Your task to perform on an android device: open app "Viber Messenger" (install if not already installed), go to login, and select forgot password Image 0: 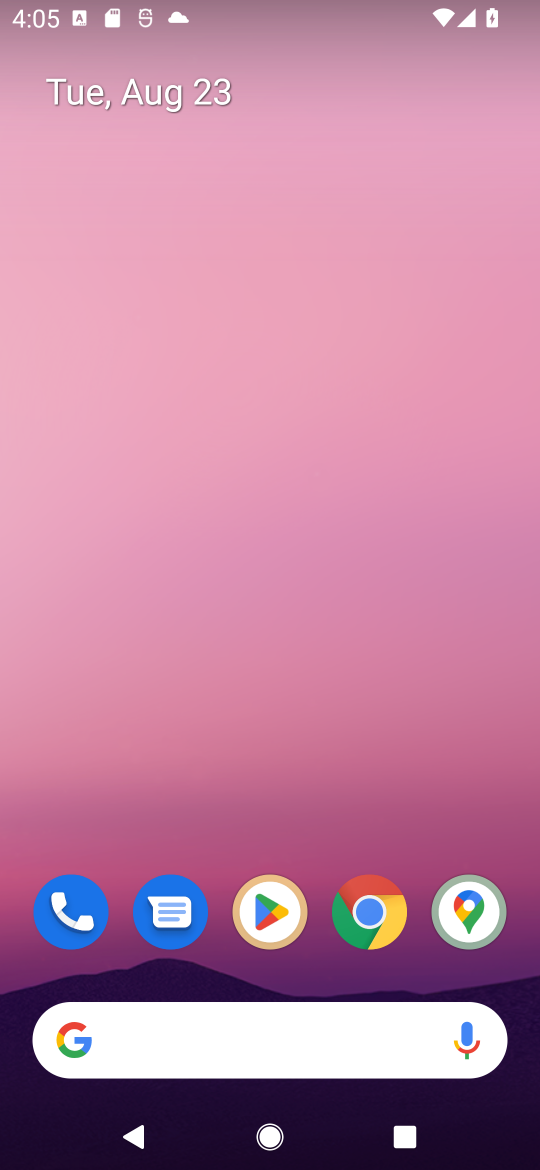
Step 0: drag from (186, 1054) to (296, 239)
Your task to perform on an android device: open app "Viber Messenger" (install if not already installed), go to login, and select forgot password Image 1: 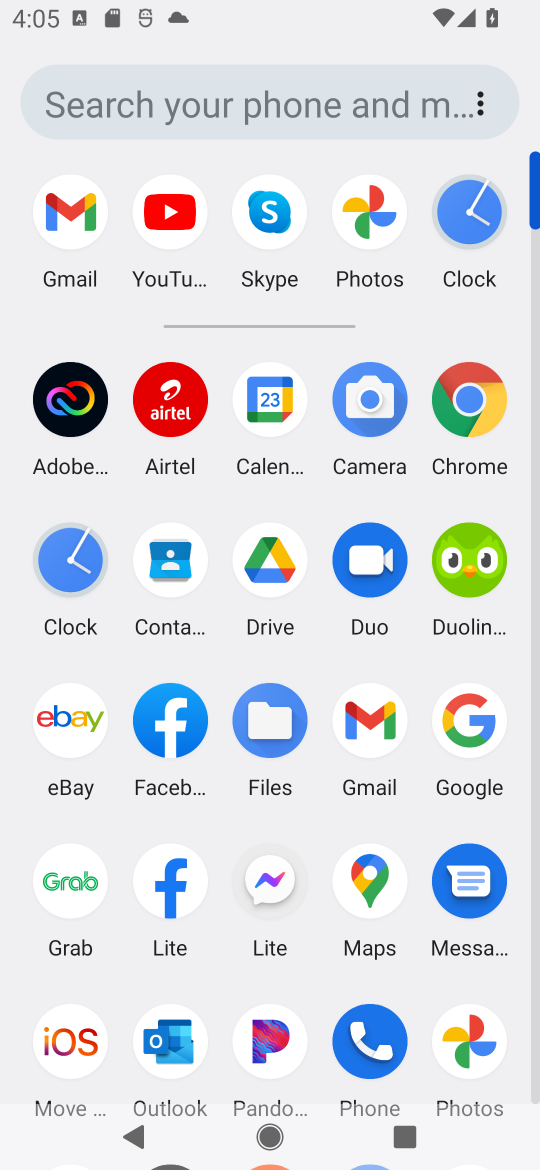
Step 1: drag from (315, 995) to (330, 616)
Your task to perform on an android device: open app "Viber Messenger" (install if not already installed), go to login, and select forgot password Image 2: 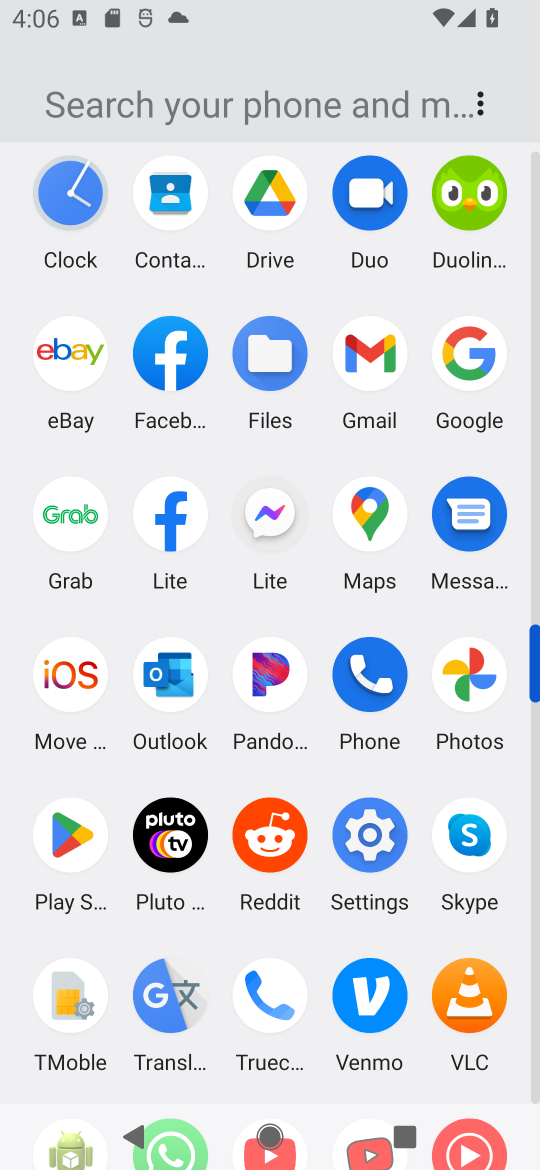
Step 2: click (67, 841)
Your task to perform on an android device: open app "Viber Messenger" (install if not already installed), go to login, and select forgot password Image 3: 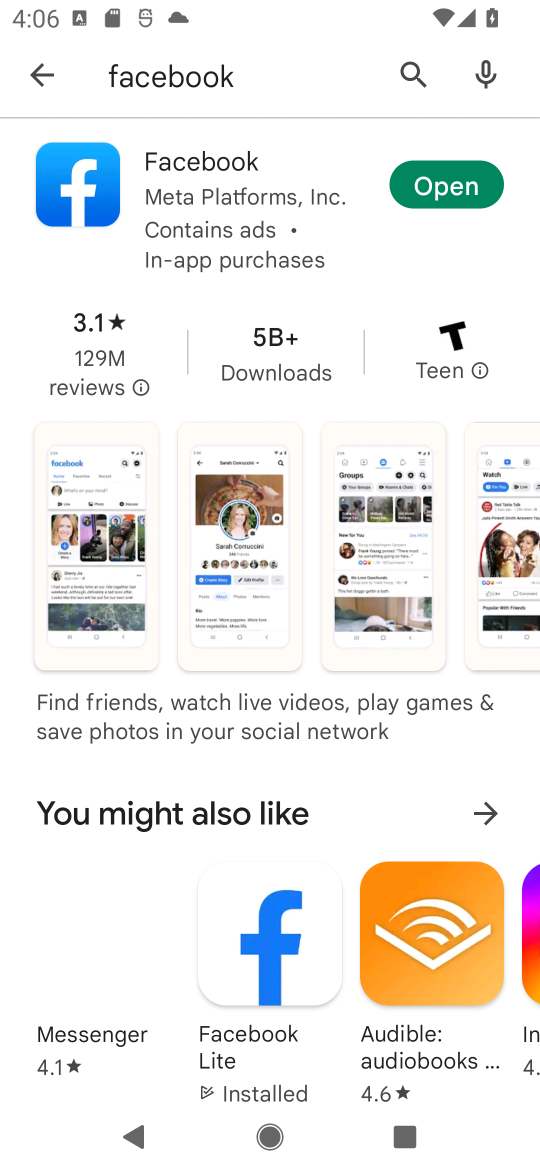
Step 3: press back button
Your task to perform on an android device: open app "Viber Messenger" (install if not already installed), go to login, and select forgot password Image 4: 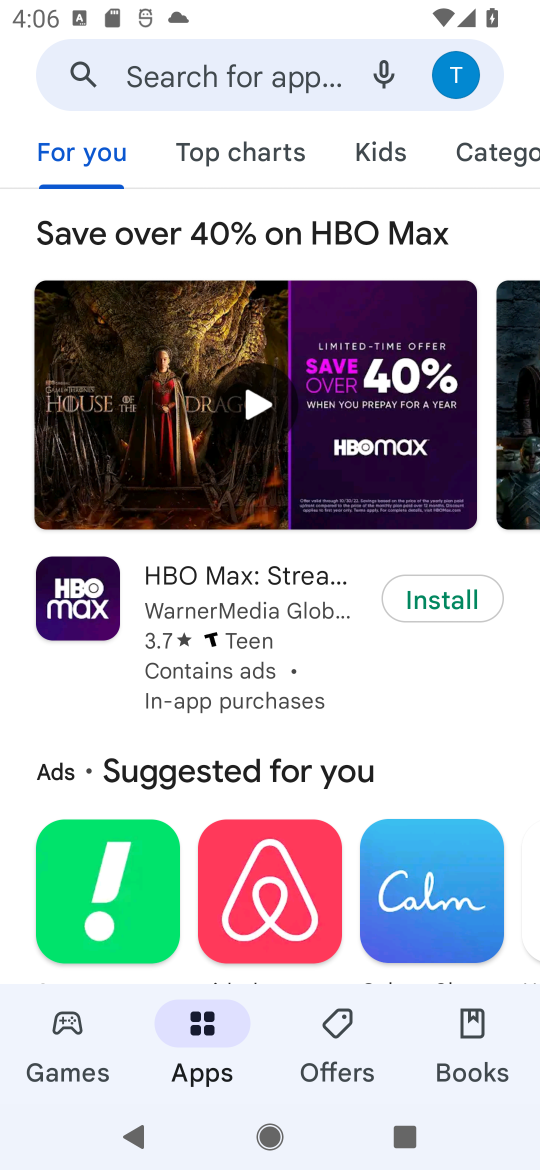
Step 4: click (248, 82)
Your task to perform on an android device: open app "Viber Messenger" (install if not already installed), go to login, and select forgot password Image 5: 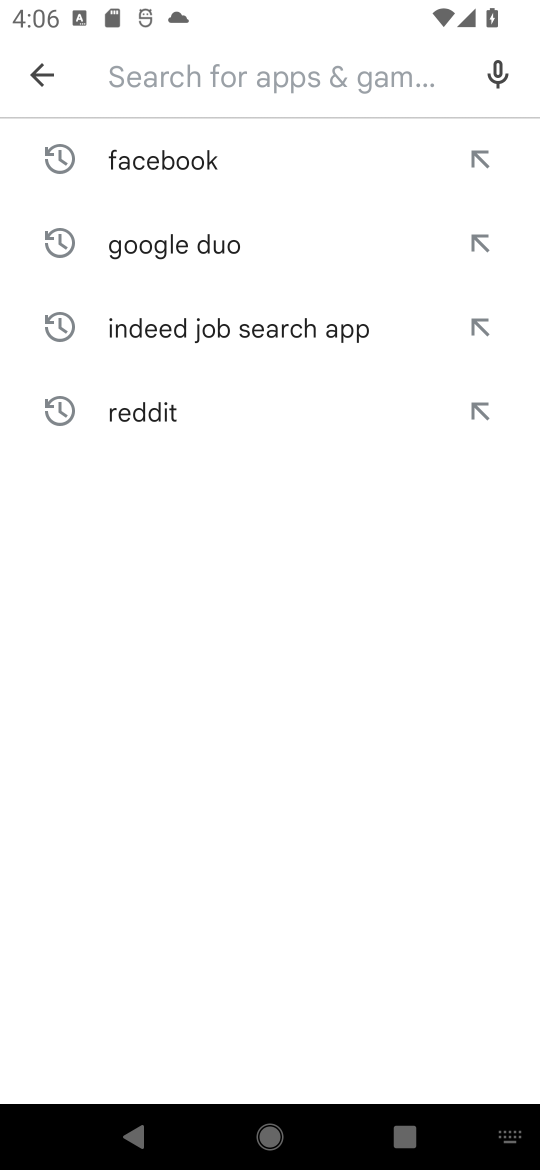
Step 5: type "Viber Messenger"
Your task to perform on an android device: open app "Viber Messenger" (install if not already installed), go to login, and select forgot password Image 6: 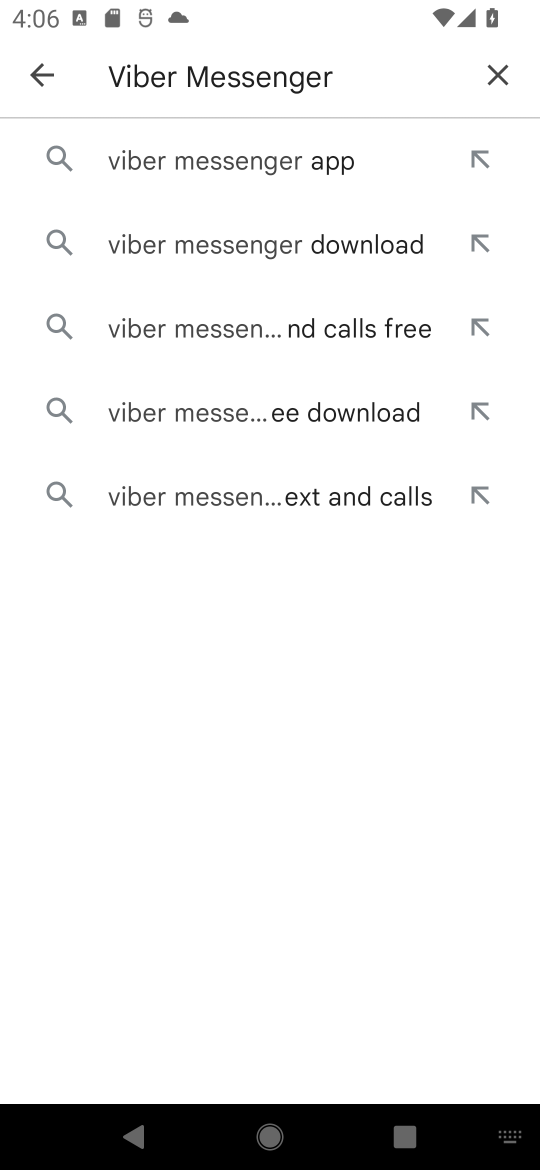
Step 6: click (244, 177)
Your task to perform on an android device: open app "Viber Messenger" (install if not already installed), go to login, and select forgot password Image 7: 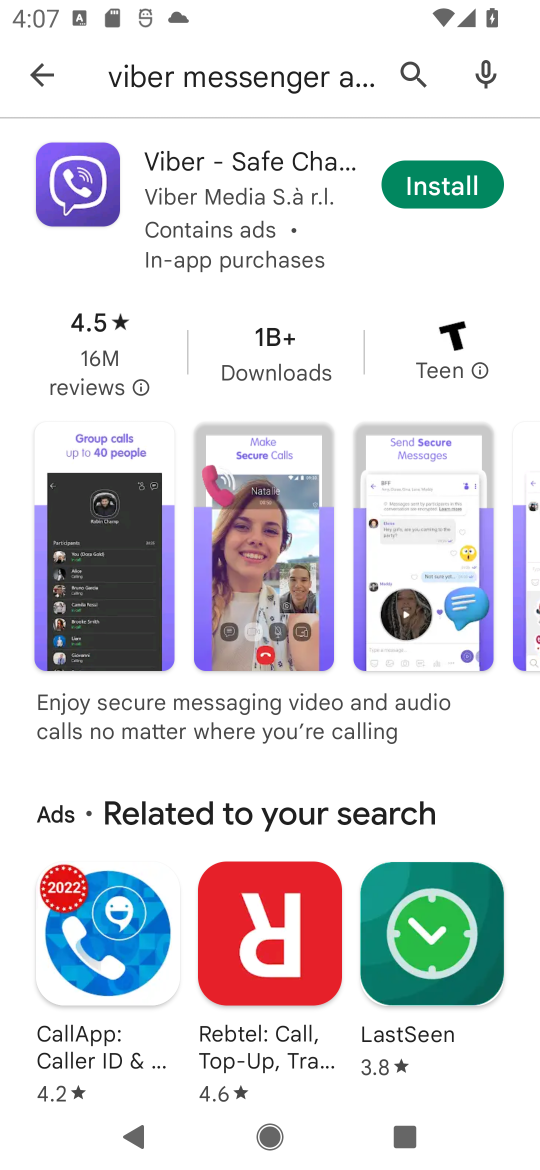
Step 7: click (427, 182)
Your task to perform on an android device: open app "Viber Messenger" (install if not already installed), go to login, and select forgot password Image 8: 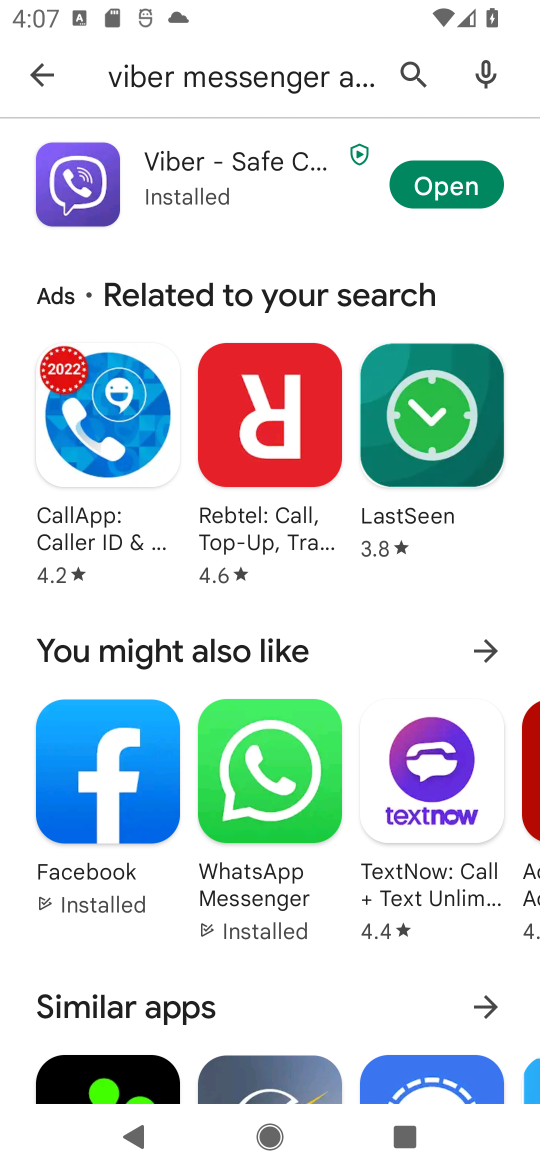
Step 8: click (442, 182)
Your task to perform on an android device: open app "Viber Messenger" (install if not already installed), go to login, and select forgot password Image 9: 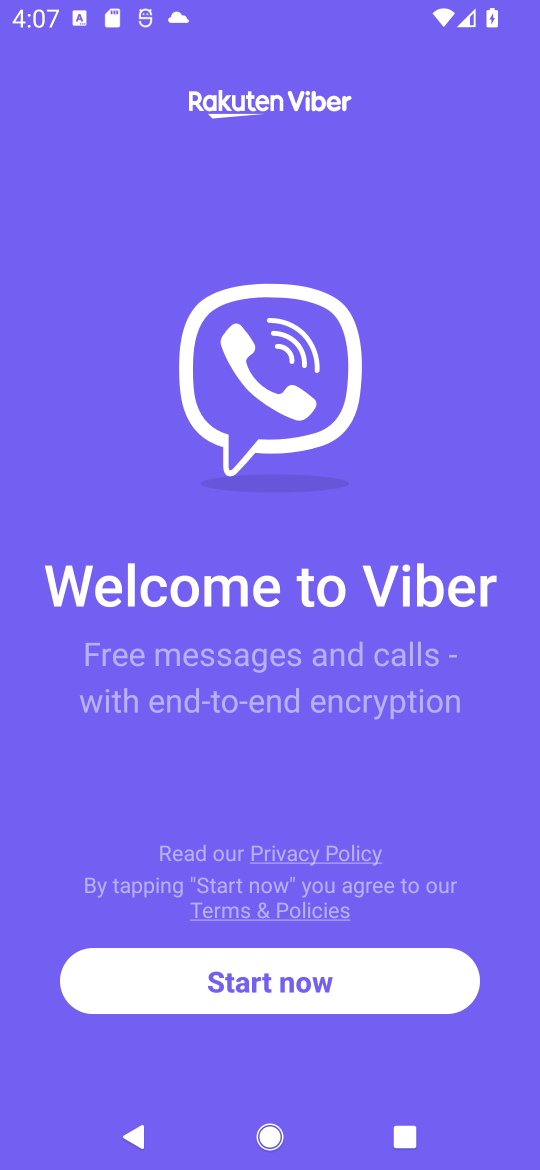
Step 9: click (296, 994)
Your task to perform on an android device: open app "Viber Messenger" (install if not already installed), go to login, and select forgot password Image 10: 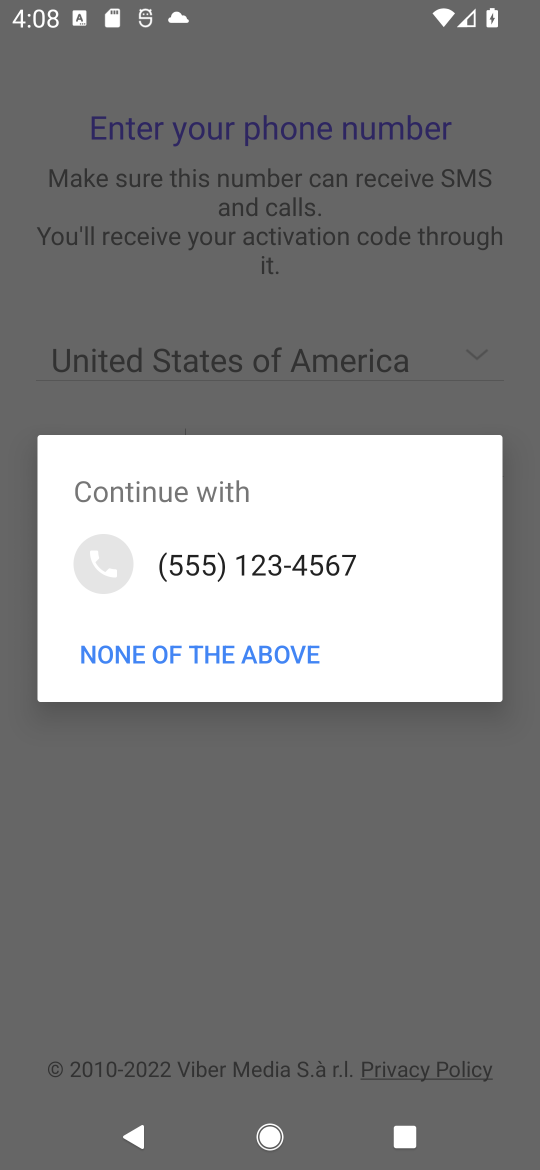
Step 10: click (288, 646)
Your task to perform on an android device: open app "Viber Messenger" (install if not already installed), go to login, and select forgot password Image 11: 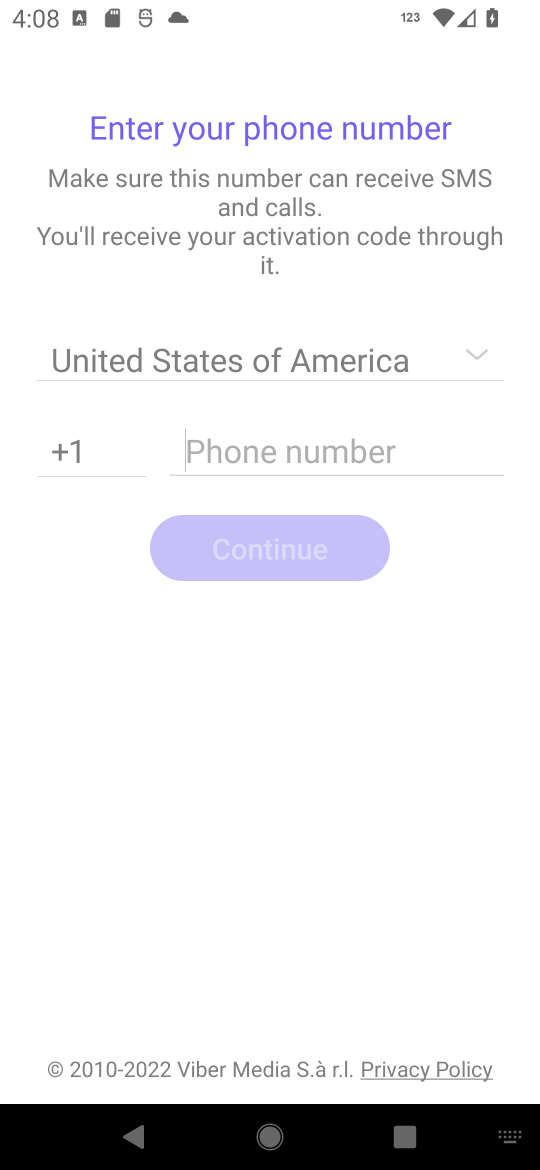
Step 11: task complete